Your task to perform on an android device: Go to internet settings Image 0: 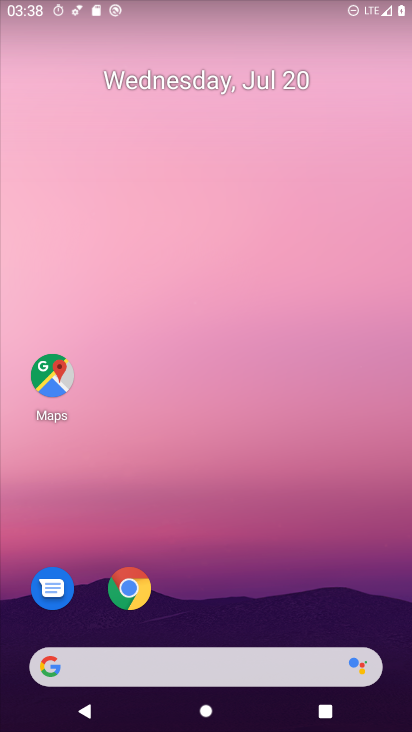
Step 0: click (226, 641)
Your task to perform on an android device: Go to internet settings Image 1: 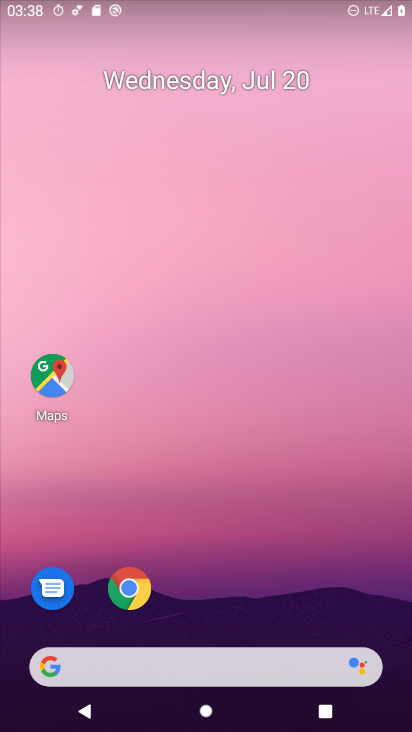
Step 1: drag from (226, 641) to (172, 114)
Your task to perform on an android device: Go to internet settings Image 2: 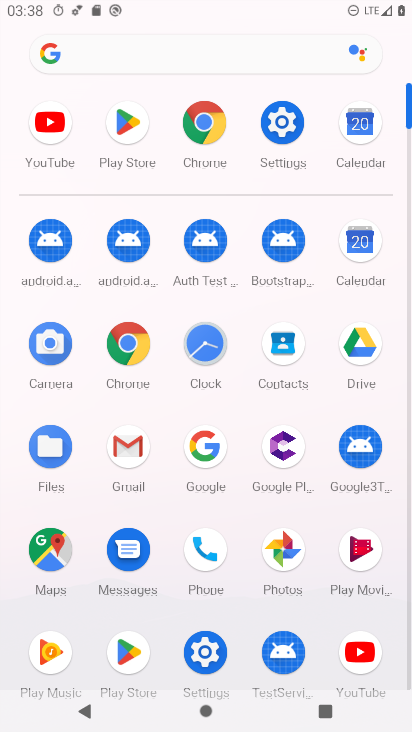
Step 2: click (257, 119)
Your task to perform on an android device: Go to internet settings Image 3: 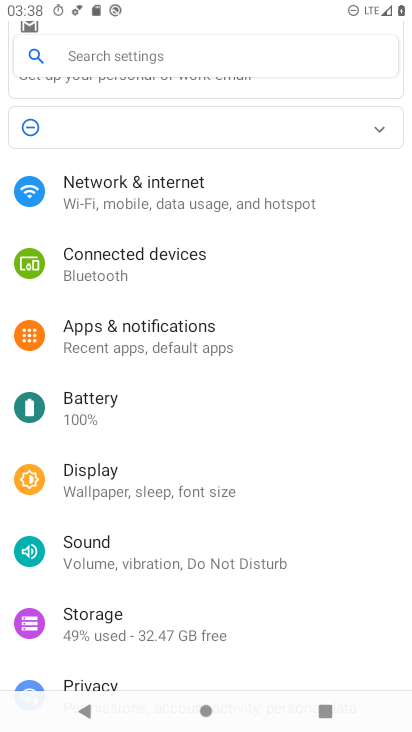
Step 3: click (163, 213)
Your task to perform on an android device: Go to internet settings Image 4: 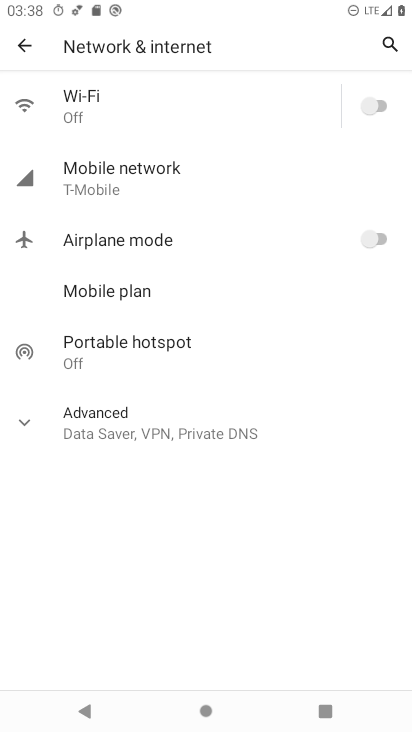
Step 4: click (119, 173)
Your task to perform on an android device: Go to internet settings Image 5: 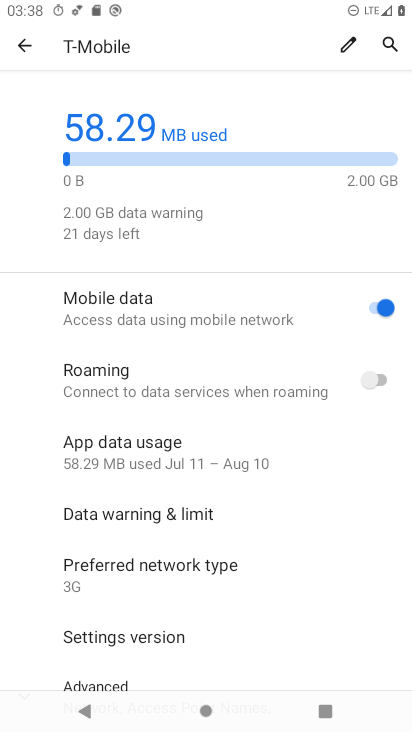
Step 5: task complete